Your task to perform on an android device: change keyboard looks Image 0: 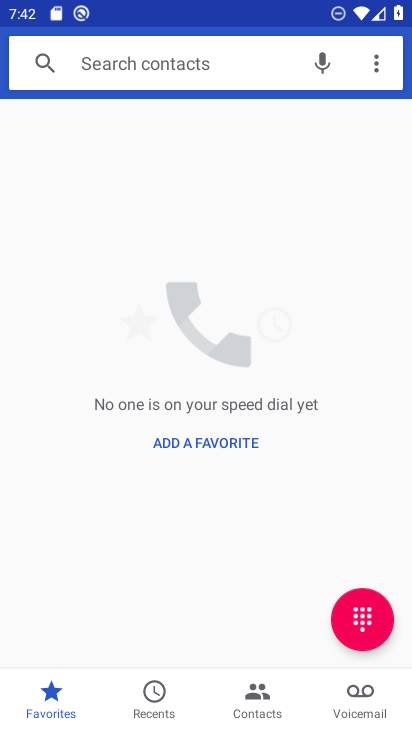
Step 0: press home button
Your task to perform on an android device: change keyboard looks Image 1: 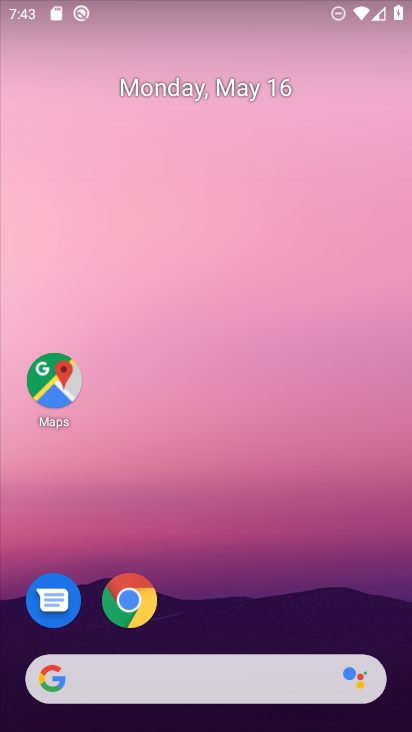
Step 1: drag from (226, 684) to (329, 350)
Your task to perform on an android device: change keyboard looks Image 2: 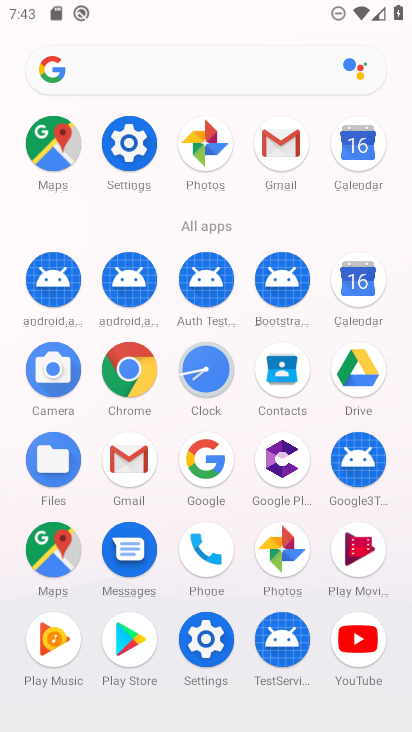
Step 2: click (121, 155)
Your task to perform on an android device: change keyboard looks Image 3: 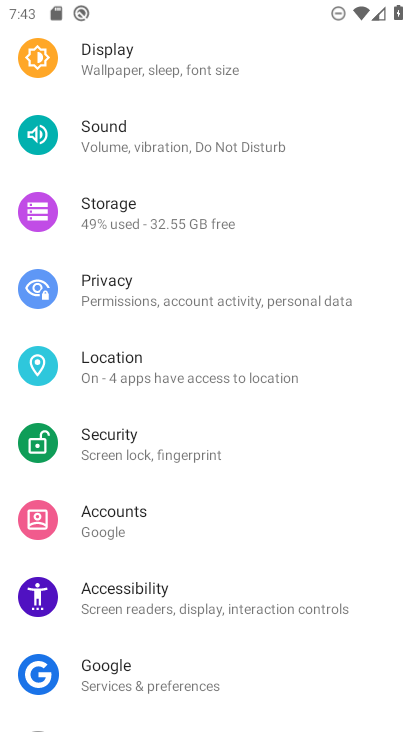
Step 3: drag from (231, 569) to (328, 307)
Your task to perform on an android device: change keyboard looks Image 4: 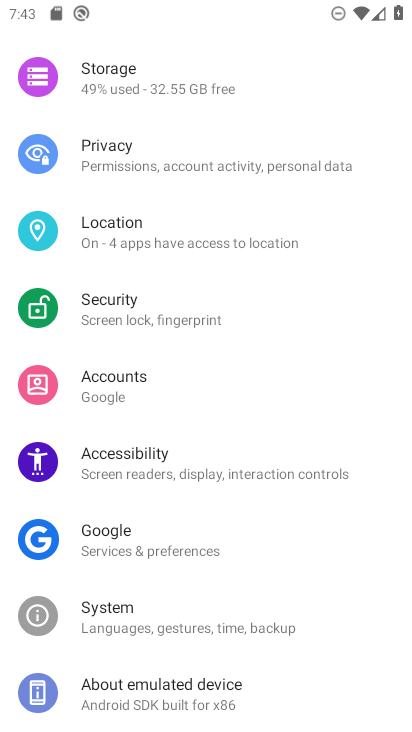
Step 4: click (129, 620)
Your task to perform on an android device: change keyboard looks Image 5: 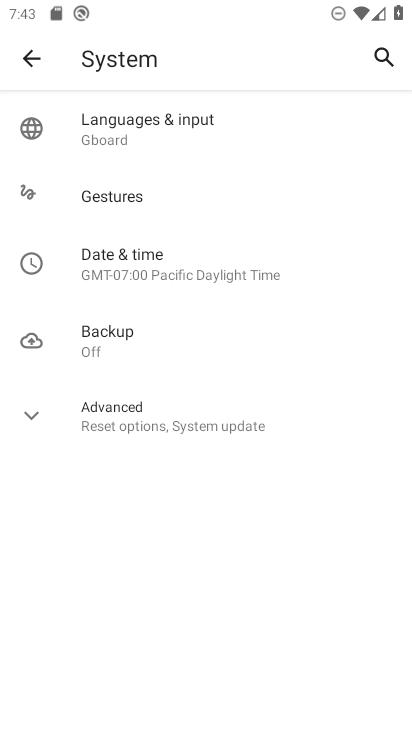
Step 5: click (154, 121)
Your task to perform on an android device: change keyboard looks Image 6: 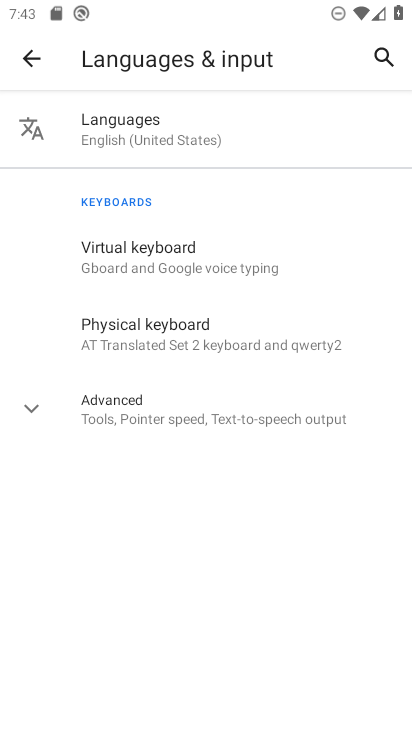
Step 6: click (142, 256)
Your task to perform on an android device: change keyboard looks Image 7: 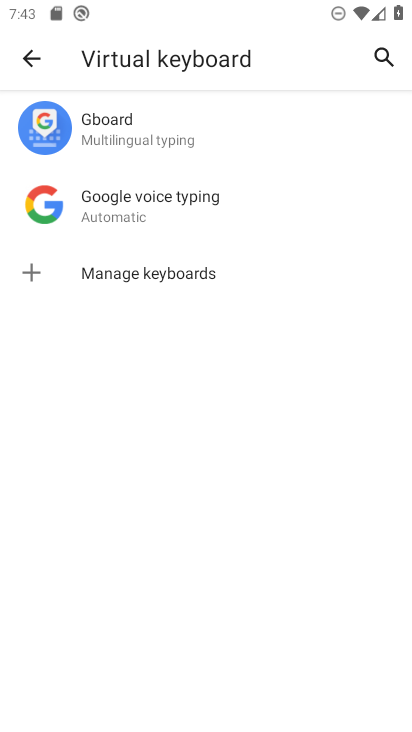
Step 7: click (167, 132)
Your task to perform on an android device: change keyboard looks Image 8: 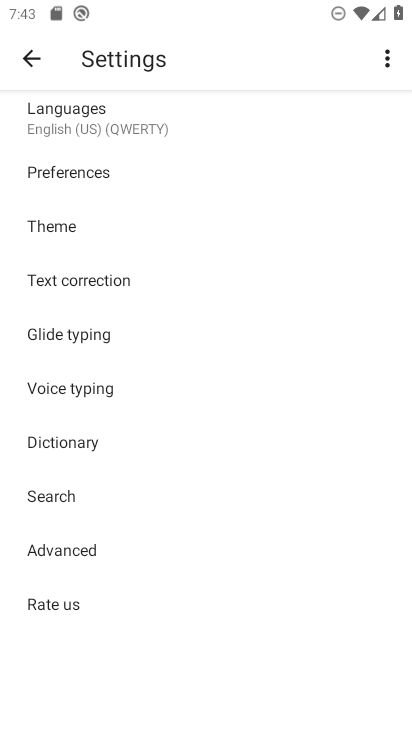
Step 8: click (63, 225)
Your task to perform on an android device: change keyboard looks Image 9: 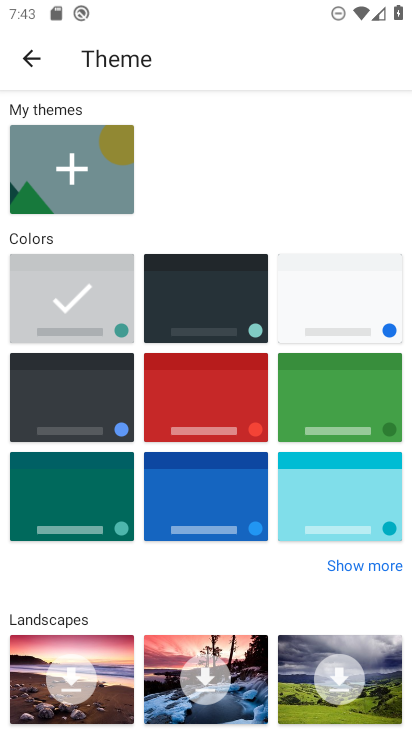
Step 9: click (80, 406)
Your task to perform on an android device: change keyboard looks Image 10: 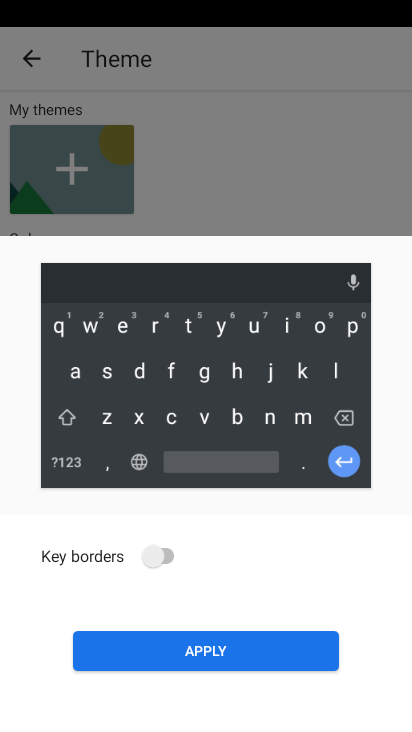
Step 10: click (214, 655)
Your task to perform on an android device: change keyboard looks Image 11: 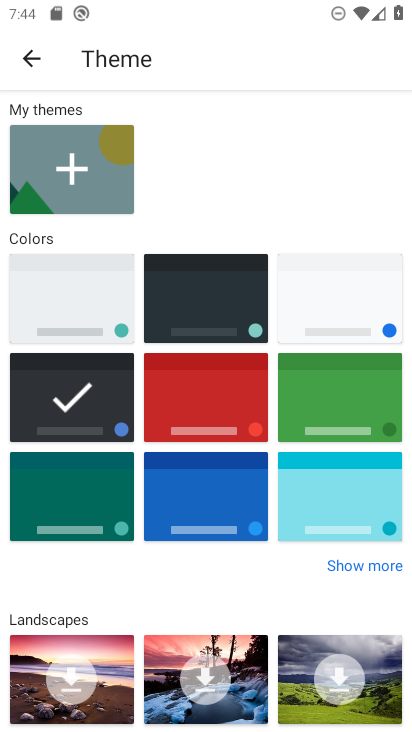
Step 11: task complete